Your task to perform on an android device: Open calendar and show me the first week of next month Image 0: 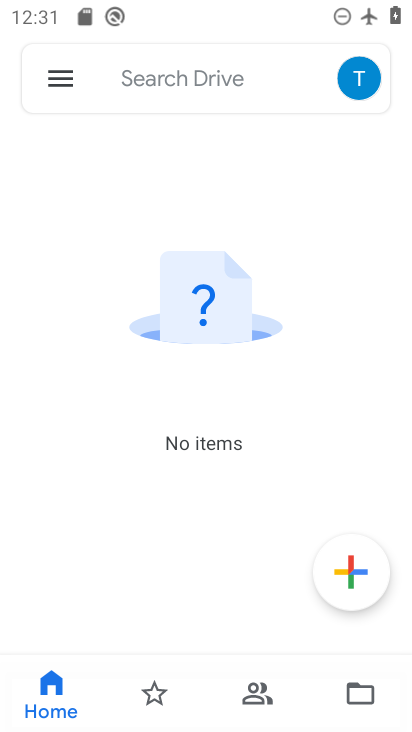
Step 0: press home button
Your task to perform on an android device: Open calendar and show me the first week of next month Image 1: 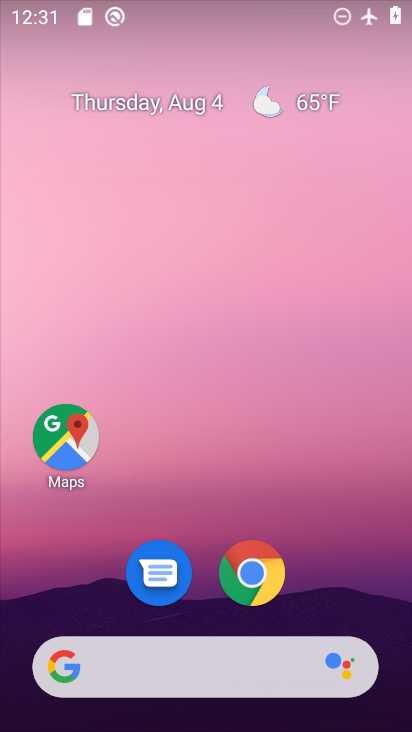
Step 1: drag from (382, 560) to (349, 124)
Your task to perform on an android device: Open calendar and show me the first week of next month Image 2: 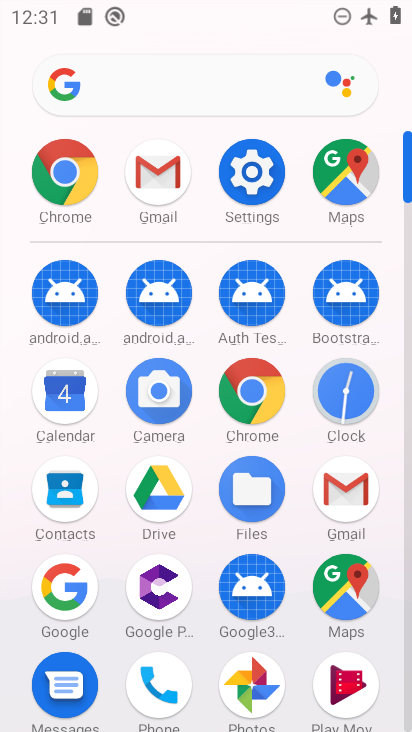
Step 2: click (54, 377)
Your task to perform on an android device: Open calendar and show me the first week of next month Image 3: 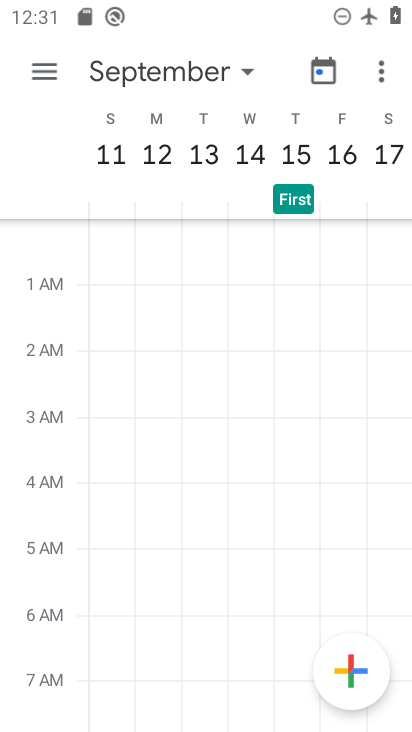
Step 3: click (200, 65)
Your task to perform on an android device: Open calendar and show me the first week of next month Image 4: 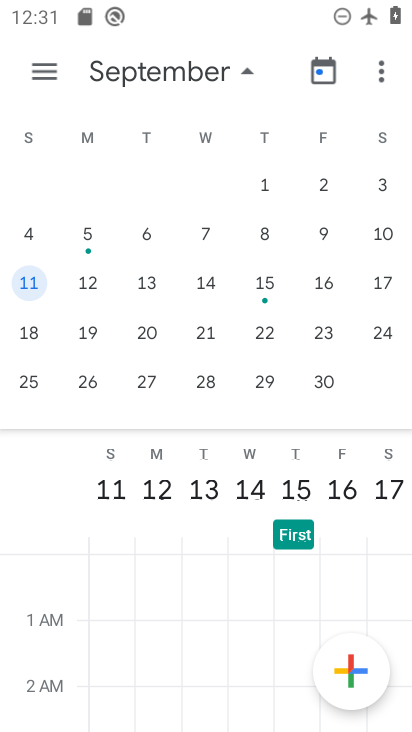
Step 4: click (193, 238)
Your task to perform on an android device: Open calendar and show me the first week of next month Image 5: 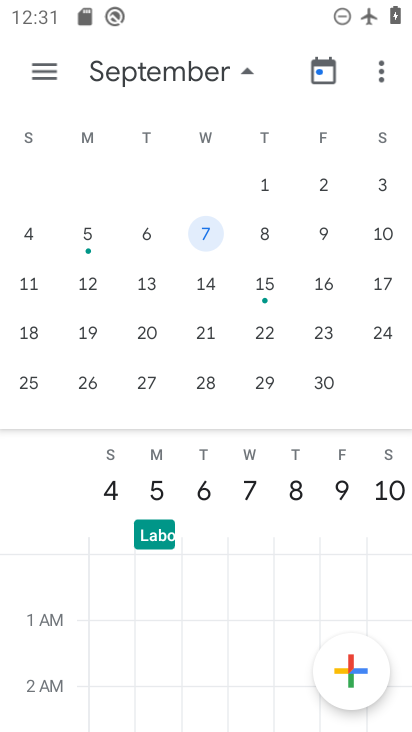
Step 5: task complete